Your task to perform on an android device: Search for pizza restaurants on Maps Image 0: 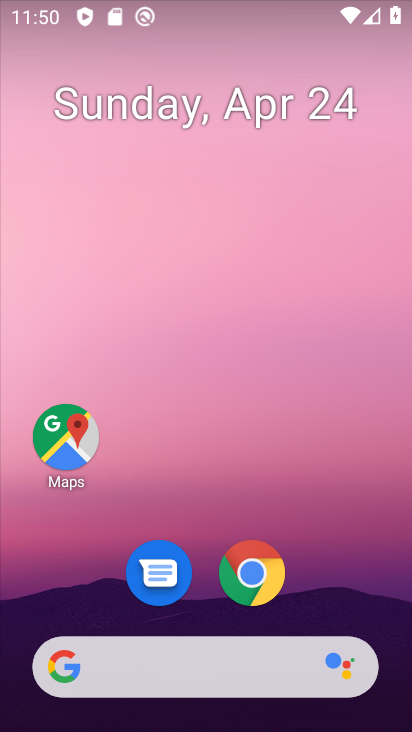
Step 0: drag from (323, 591) to (371, 93)
Your task to perform on an android device: Search for pizza restaurants on Maps Image 1: 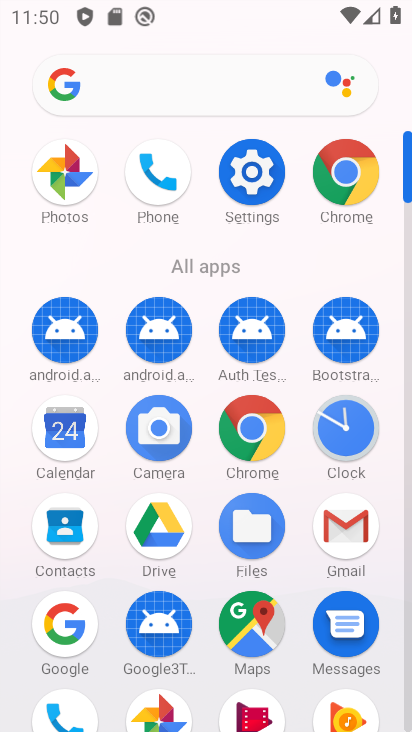
Step 1: click (256, 638)
Your task to perform on an android device: Search for pizza restaurants on Maps Image 2: 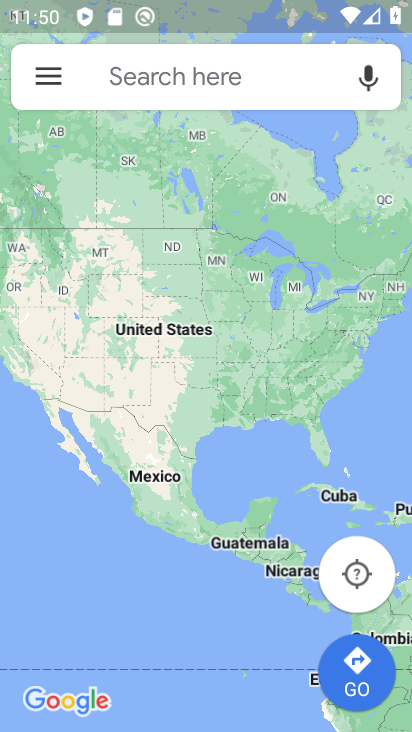
Step 2: click (142, 102)
Your task to perform on an android device: Search for pizza restaurants on Maps Image 3: 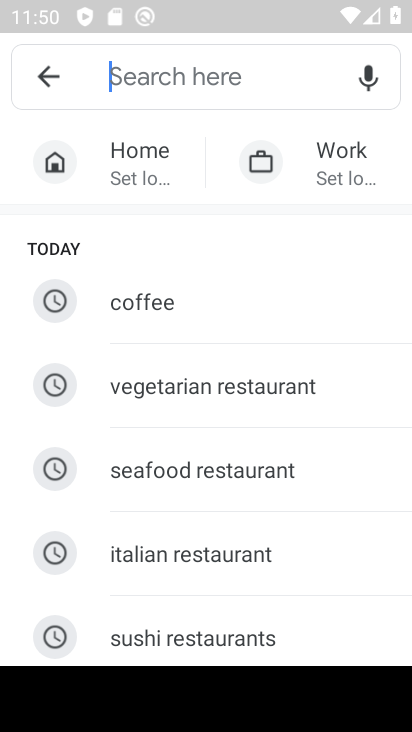
Step 3: type "pizza resturents"
Your task to perform on an android device: Search for pizza restaurants on Maps Image 4: 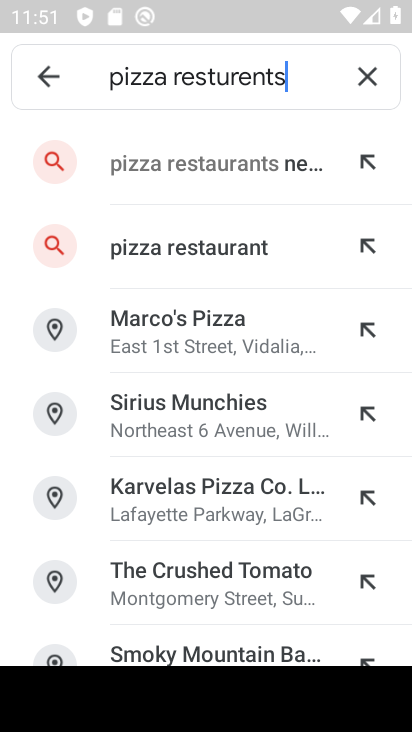
Step 4: click (266, 168)
Your task to perform on an android device: Search for pizza restaurants on Maps Image 5: 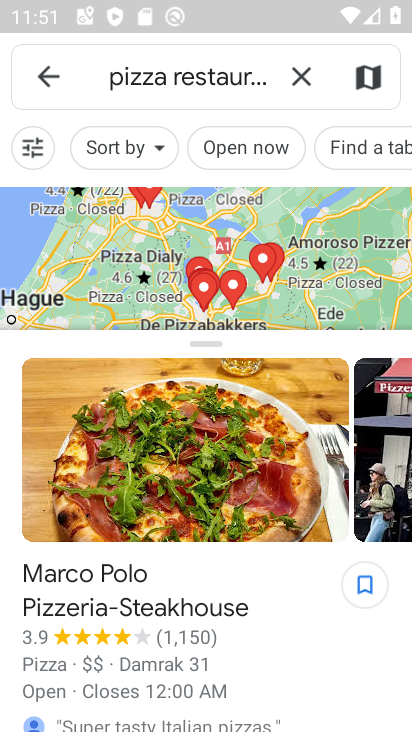
Step 5: task complete